Your task to perform on an android device: Go to CNN.com Image 0: 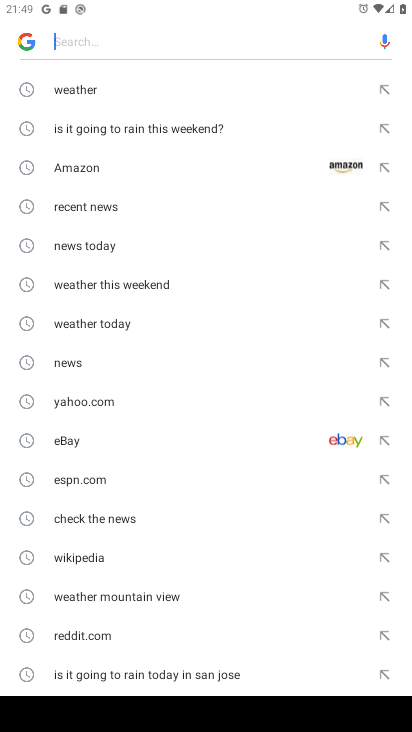
Step 0: click (113, 47)
Your task to perform on an android device: Go to CNN.com Image 1: 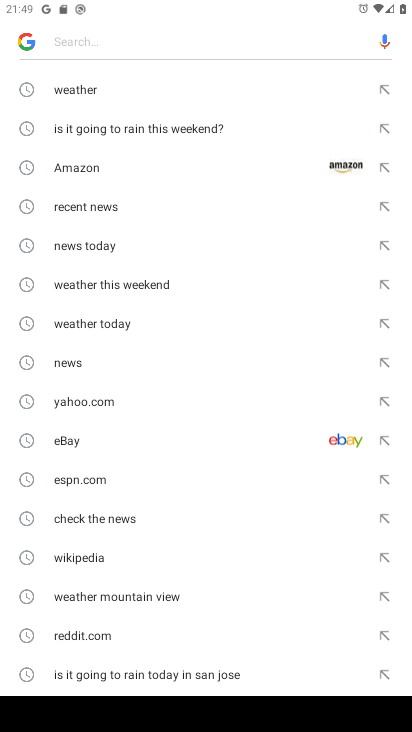
Step 1: type "cnn.com"
Your task to perform on an android device: Go to CNN.com Image 2: 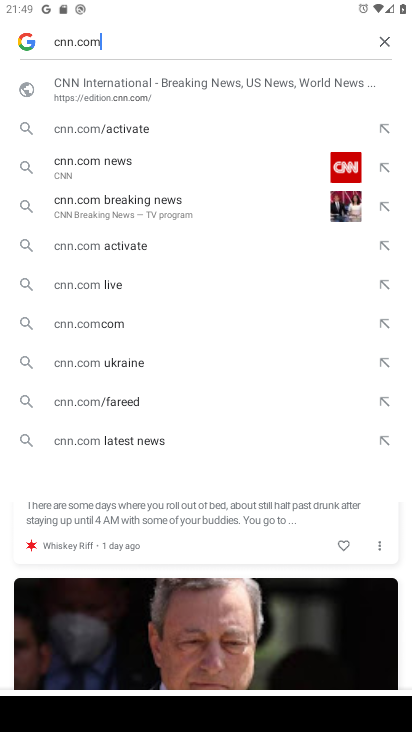
Step 2: click (159, 104)
Your task to perform on an android device: Go to CNN.com Image 3: 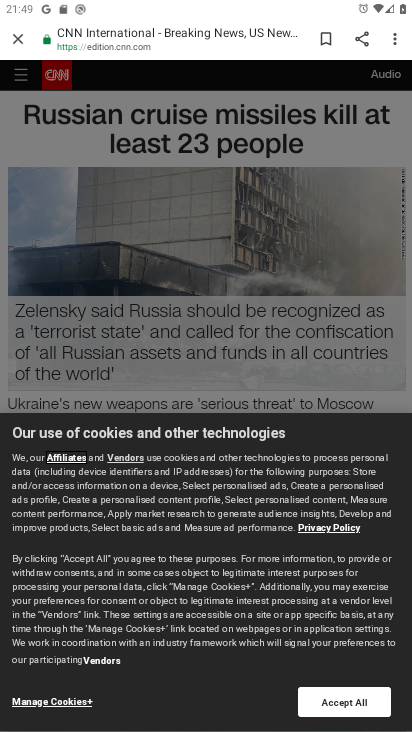
Step 3: task complete